Your task to perform on an android device: Search for vegetarian restaurants on Maps Image 0: 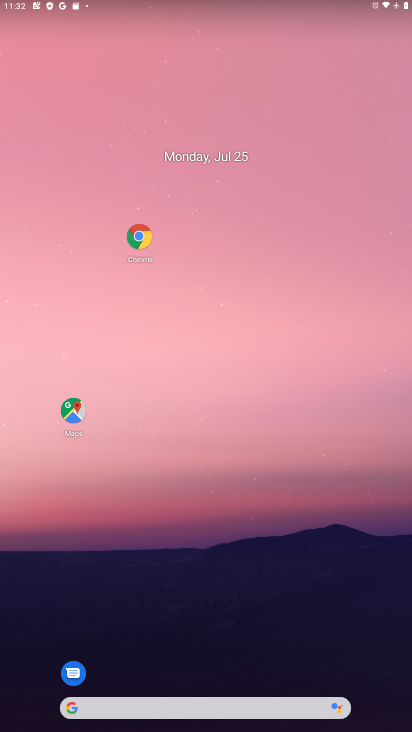
Step 0: click (71, 430)
Your task to perform on an android device: Search for vegetarian restaurants on Maps Image 1: 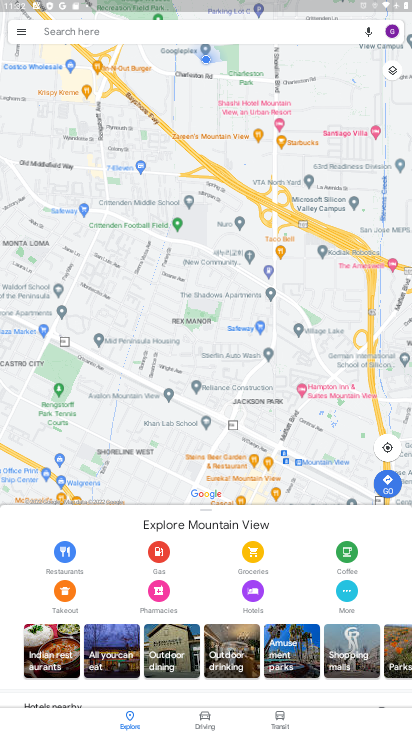
Step 1: click (215, 28)
Your task to perform on an android device: Search for vegetarian restaurants on Maps Image 2: 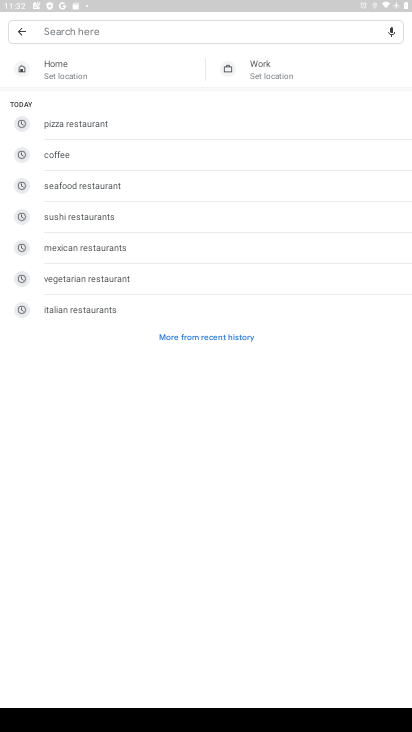
Step 2: click (215, 28)
Your task to perform on an android device: Search for vegetarian restaurants on Maps Image 3: 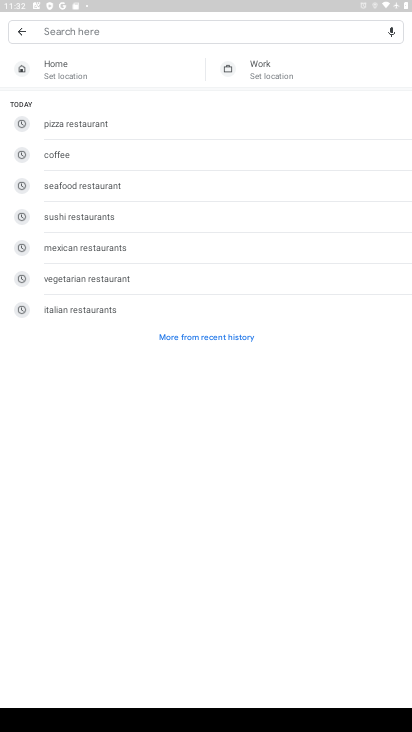
Step 3: click (141, 276)
Your task to perform on an android device: Search for vegetarian restaurants on Maps Image 4: 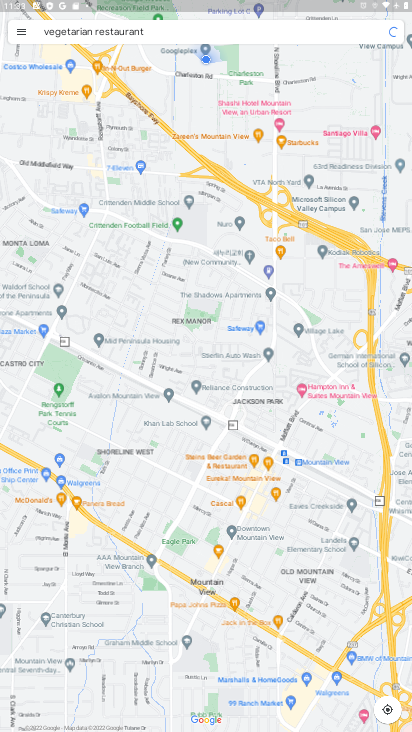
Step 4: task complete